Your task to perform on an android device: install app "Walmart Shopping & Grocery" Image 0: 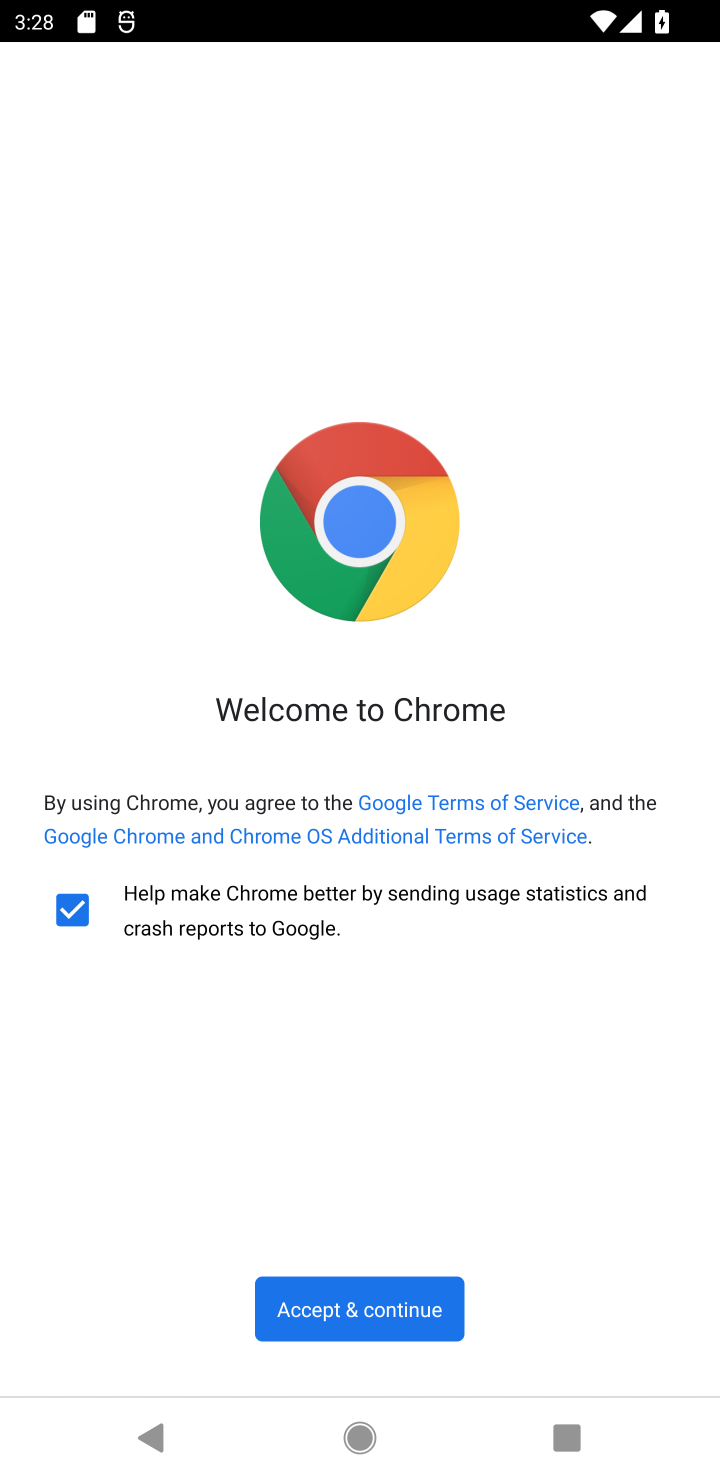
Step 0: press home button
Your task to perform on an android device: install app "Walmart Shopping & Grocery" Image 1: 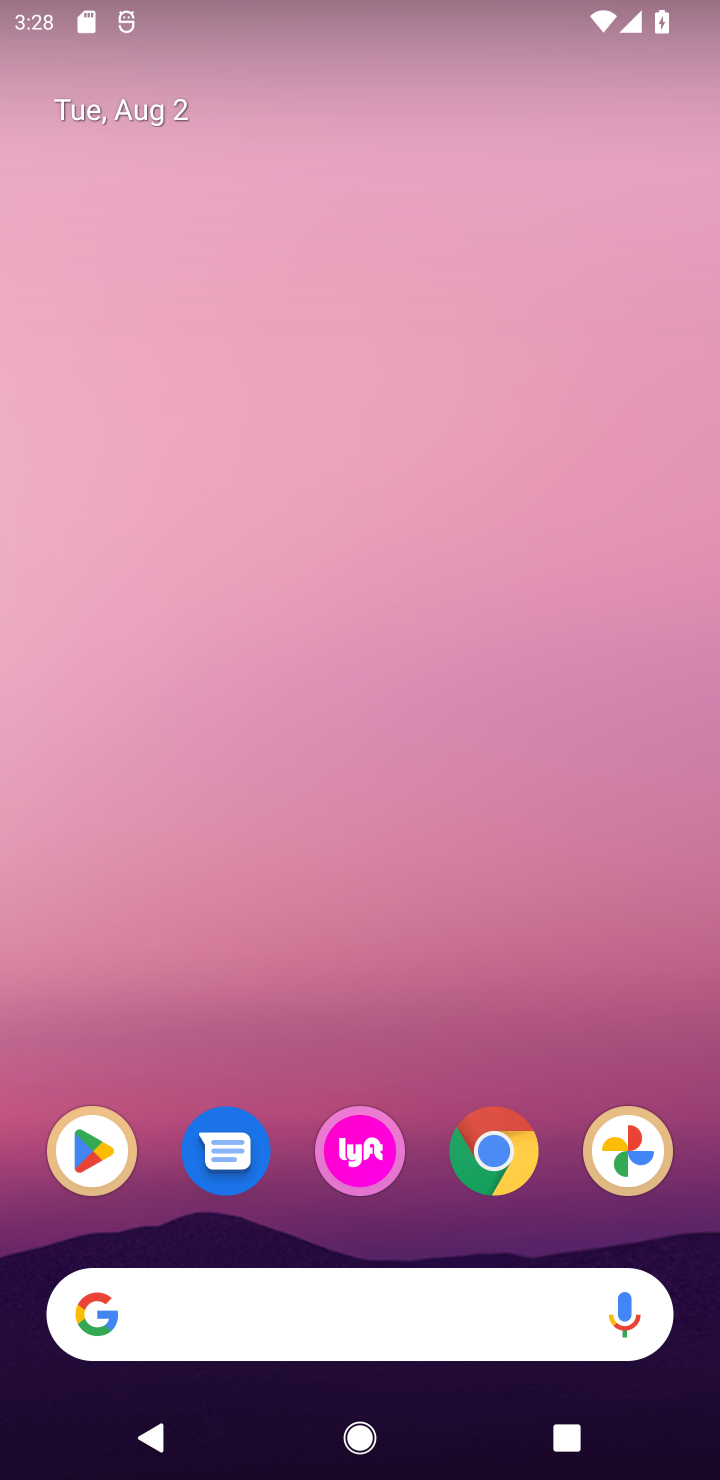
Step 1: drag from (444, 1464) to (369, 66)
Your task to perform on an android device: install app "Walmart Shopping & Grocery" Image 2: 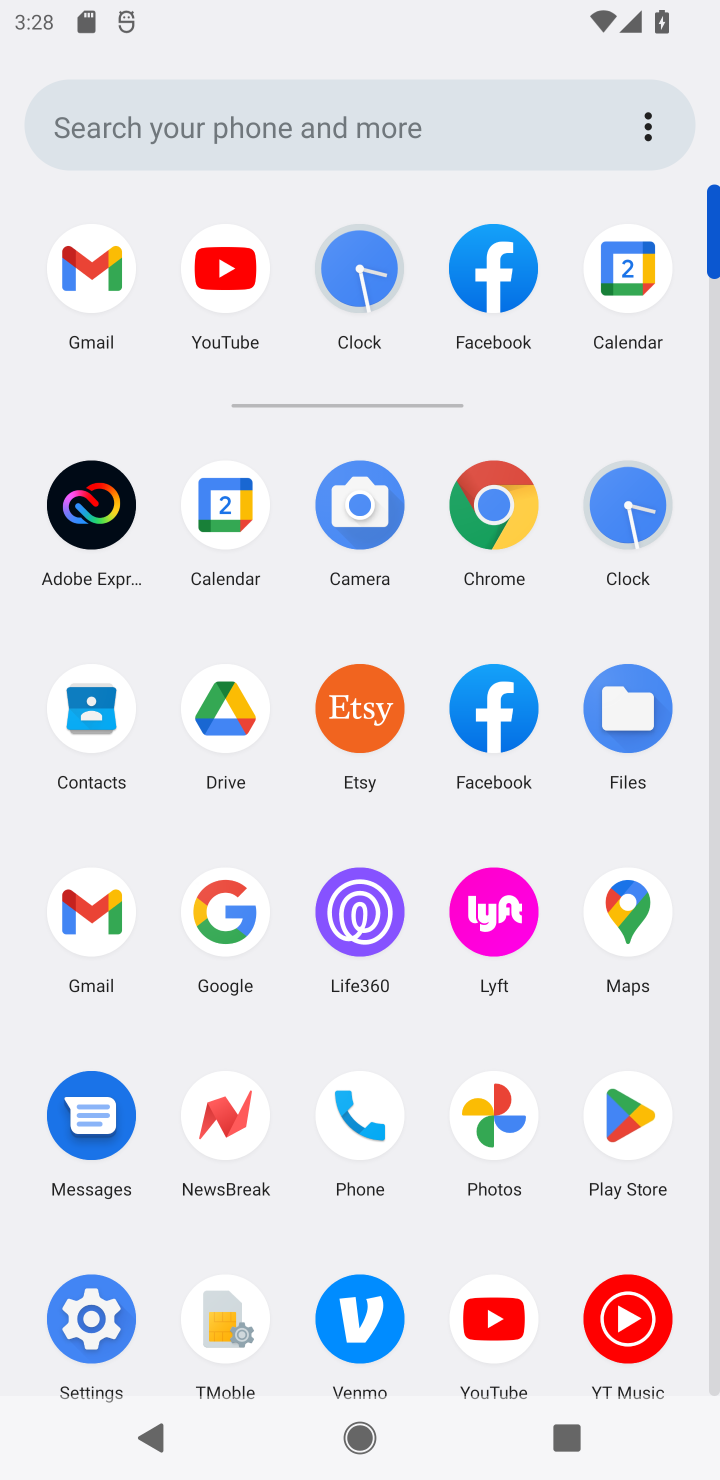
Step 2: click (617, 1100)
Your task to perform on an android device: install app "Walmart Shopping & Grocery" Image 3: 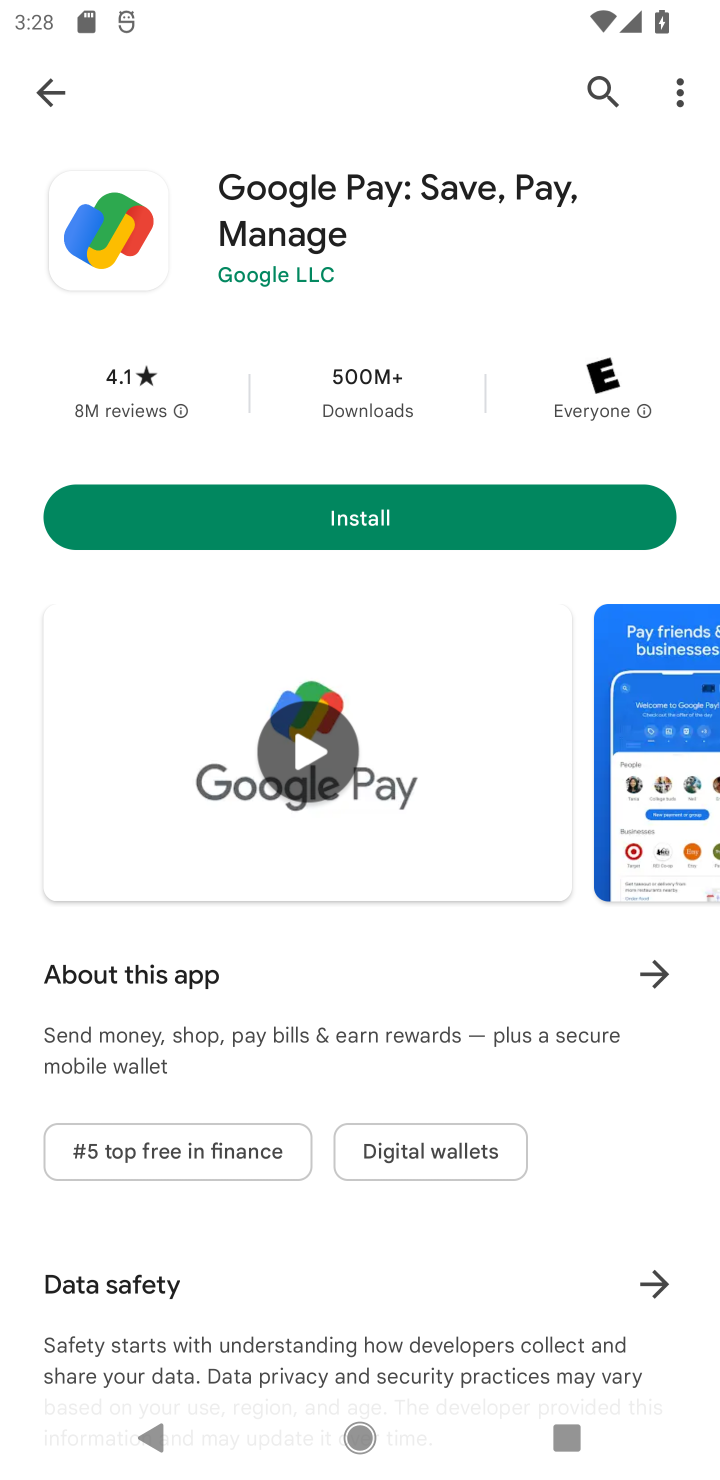
Step 3: click (595, 86)
Your task to perform on an android device: install app "Walmart Shopping & Grocery" Image 4: 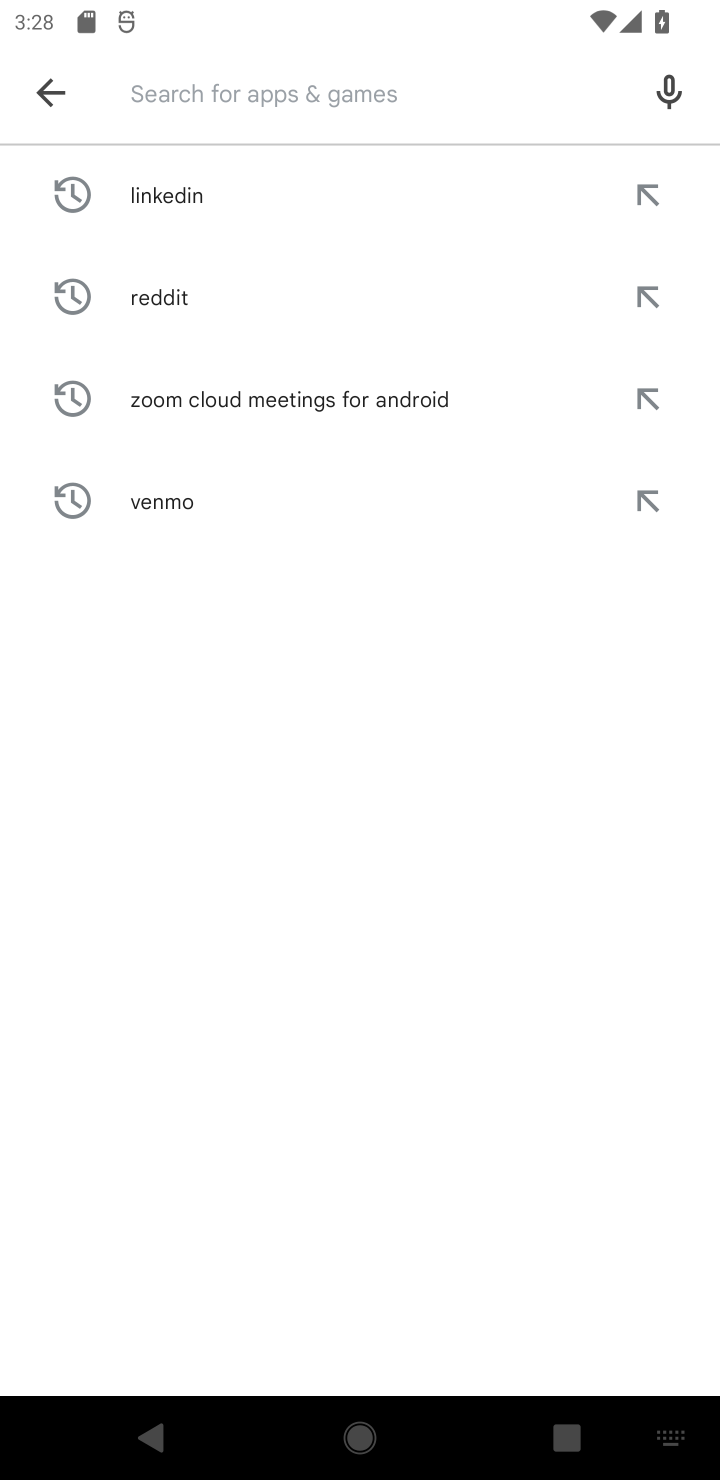
Step 4: type "Walmart Shopping & Grocery"
Your task to perform on an android device: install app "Walmart Shopping & Grocery" Image 5: 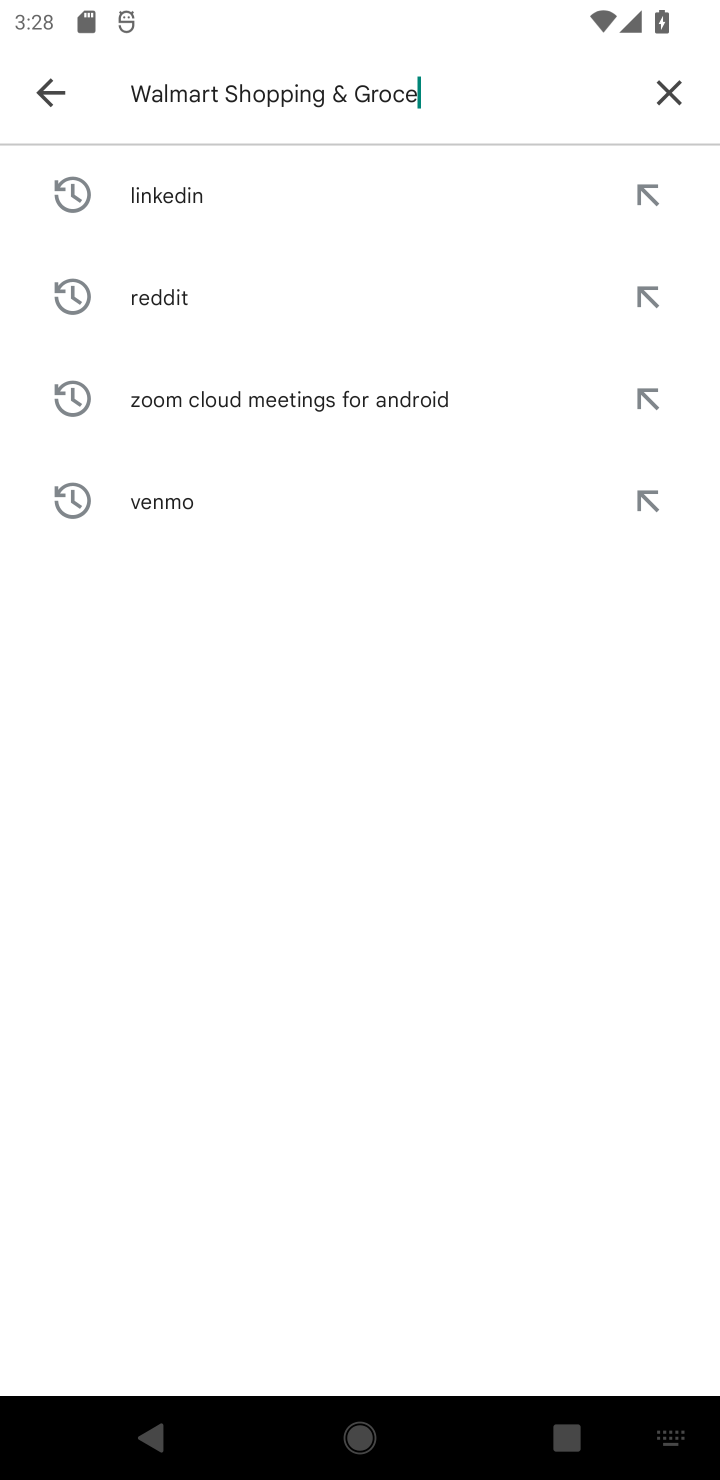
Step 5: type ""
Your task to perform on an android device: install app "Walmart Shopping & Grocery" Image 6: 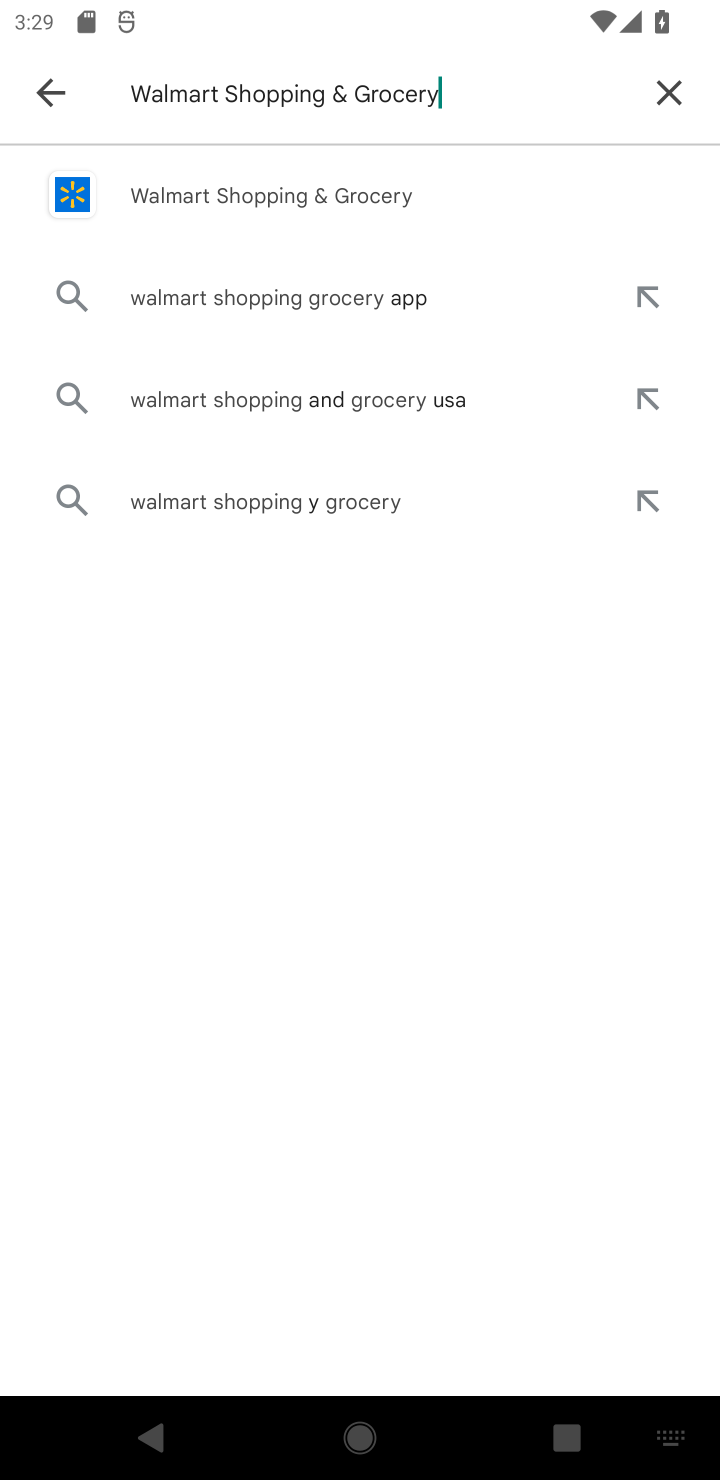
Step 6: click (222, 196)
Your task to perform on an android device: install app "Walmart Shopping & Grocery" Image 7: 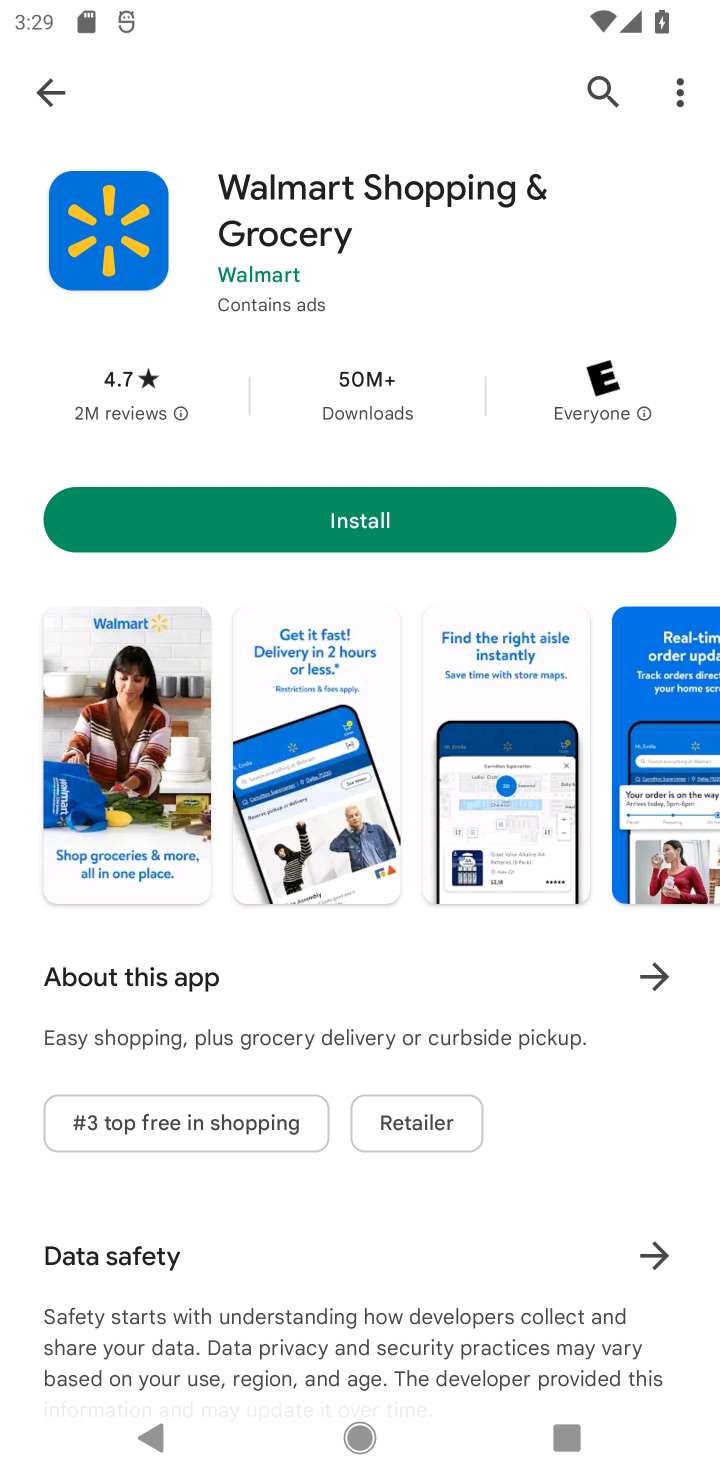
Step 7: click (404, 528)
Your task to perform on an android device: install app "Walmart Shopping & Grocery" Image 8: 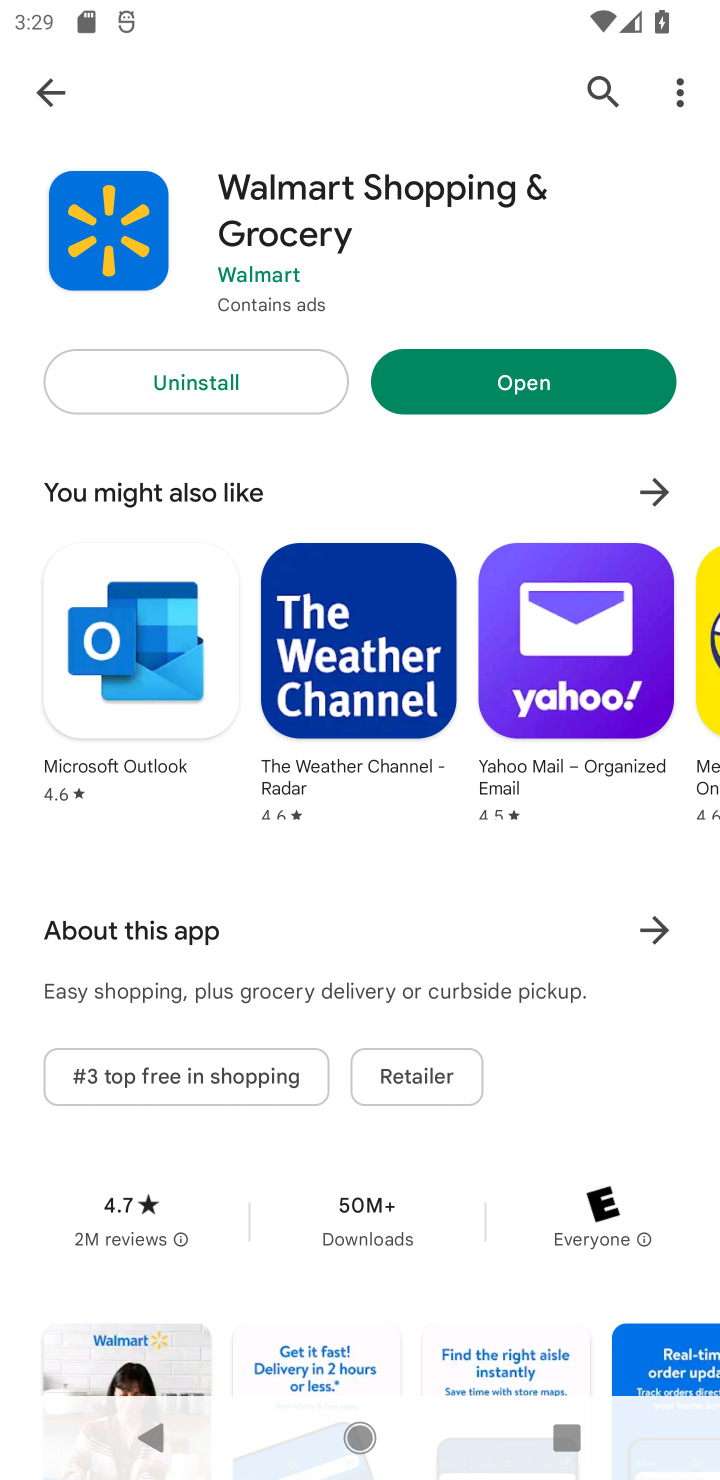
Step 8: task complete